Your task to perform on an android device: set an alarm Image 0: 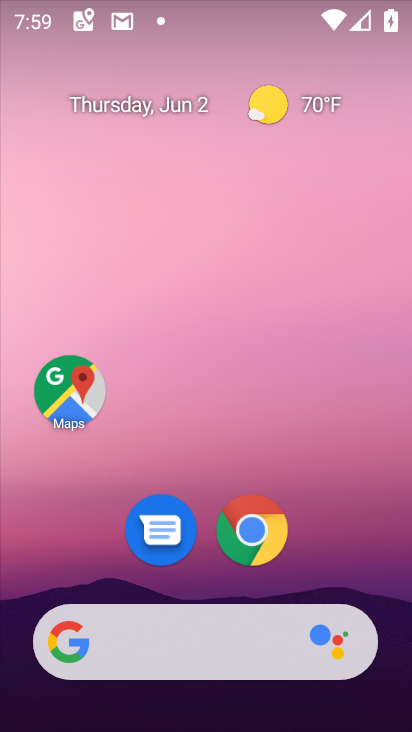
Step 0: drag from (213, 617) to (209, 291)
Your task to perform on an android device: set an alarm Image 1: 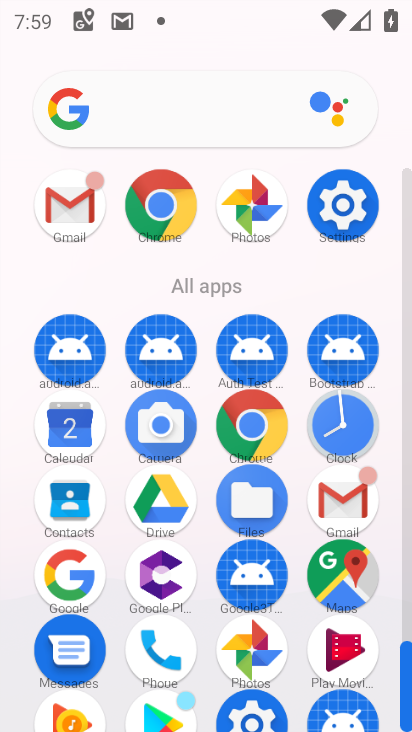
Step 1: click (330, 436)
Your task to perform on an android device: set an alarm Image 2: 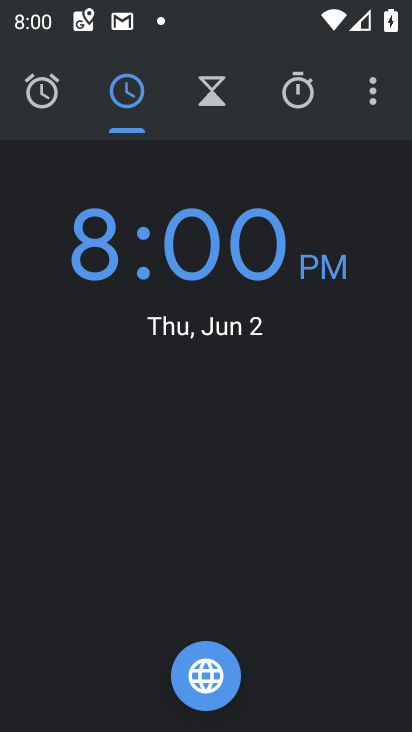
Step 2: click (37, 91)
Your task to perform on an android device: set an alarm Image 3: 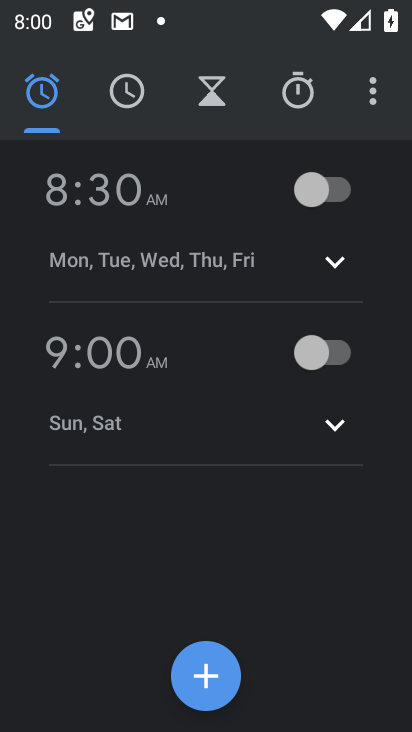
Step 3: click (336, 184)
Your task to perform on an android device: set an alarm Image 4: 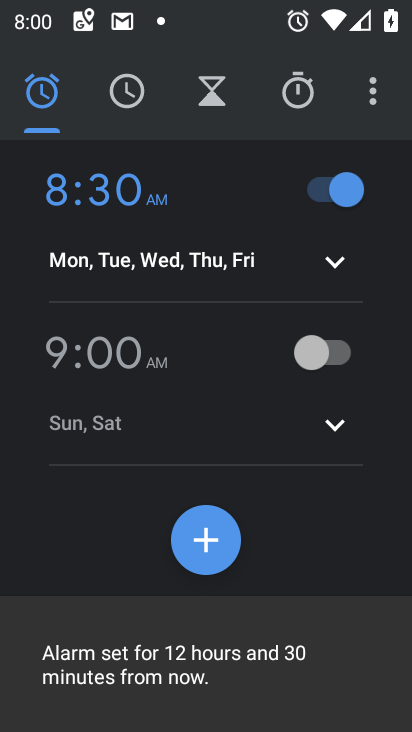
Step 4: task complete